Your task to perform on an android device: turn on javascript in the chrome app Image 0: 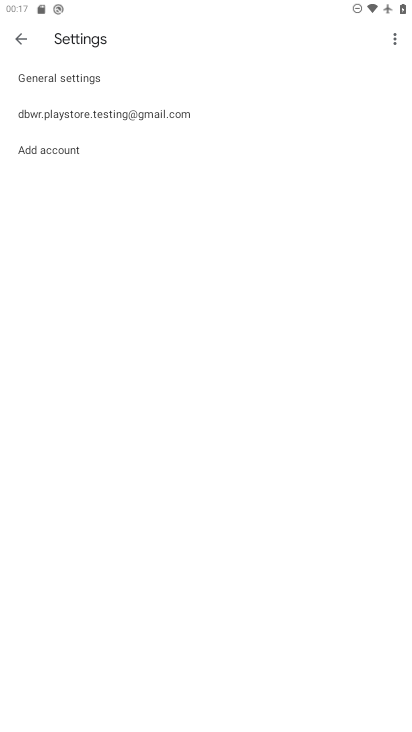
Step 0: press home button
Your task to perform on an android device: turn on javascript in the chrome app Image 1: 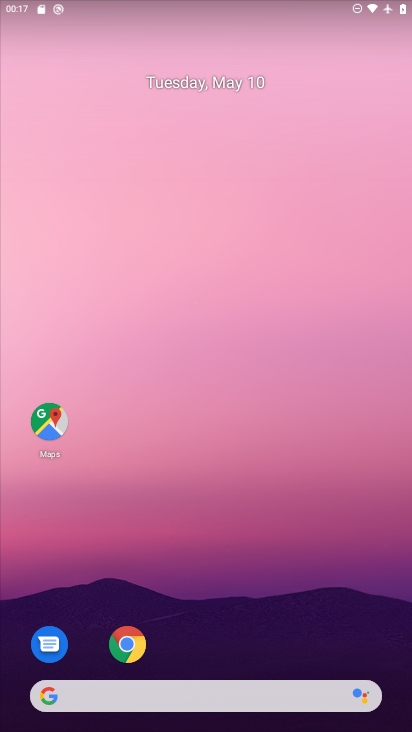
Step 1: click (117, 653)
Your task to perform on an android device: turn on javascript in the chrome app Image 2: 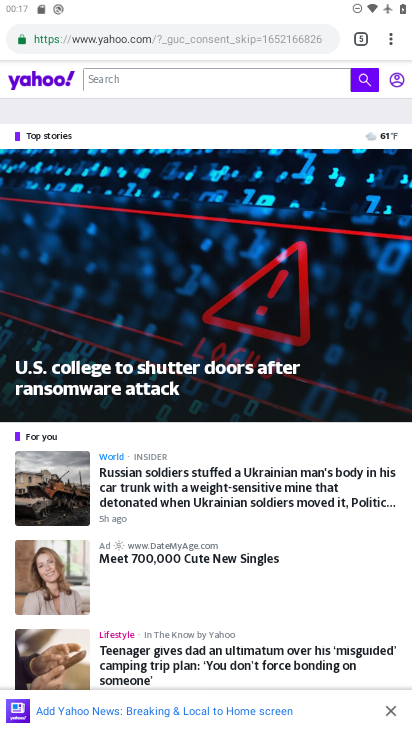
Step 2: click (401, 34)
Your task to perform on an android device: turn on javascript in the chrome app Image 3: 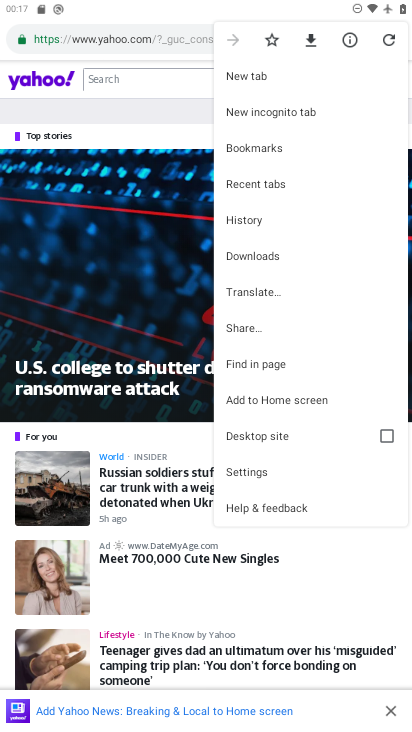
Step 3: click (262, 476)
Your task to perform on an android device: turn on javascript in the chrome app Image 4: 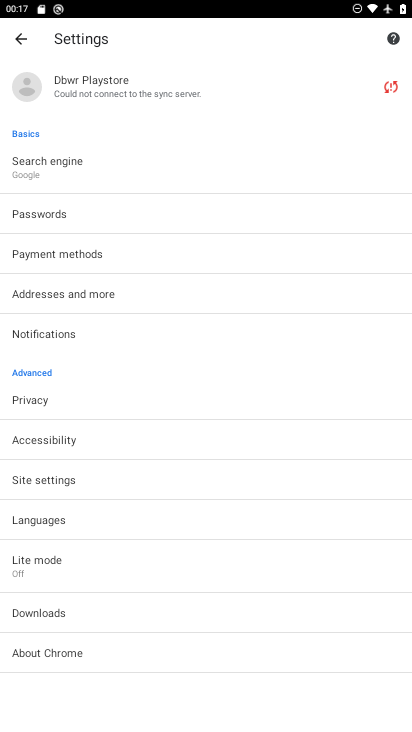
Step 4: click (63, 477)
Your task to perform on an android device: turn on javascript in the chrome app Image 5: 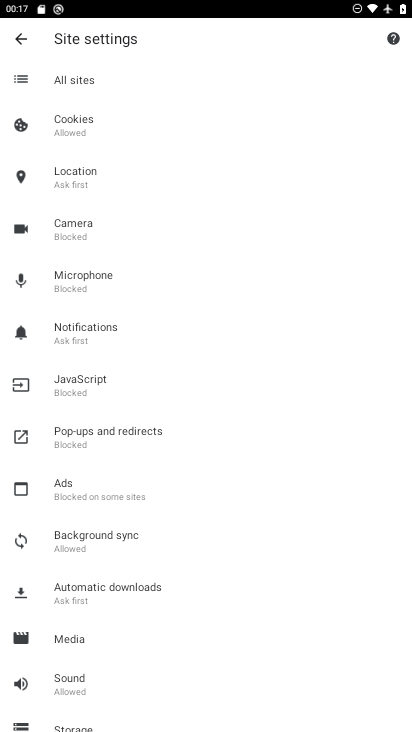
Step 5: click (86, 397)
Your task to perform on an android device: turn on javascript in the chrome app Image 6: 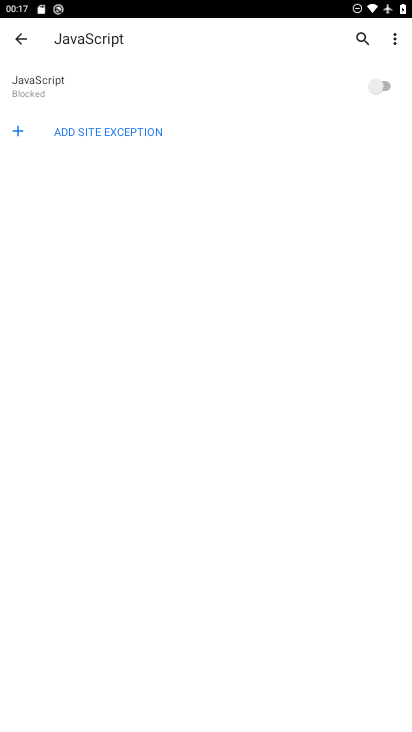
Step 6: click (116, 91)
Your task to perform on an android device: turn on javascript in the chrome app Image 7: 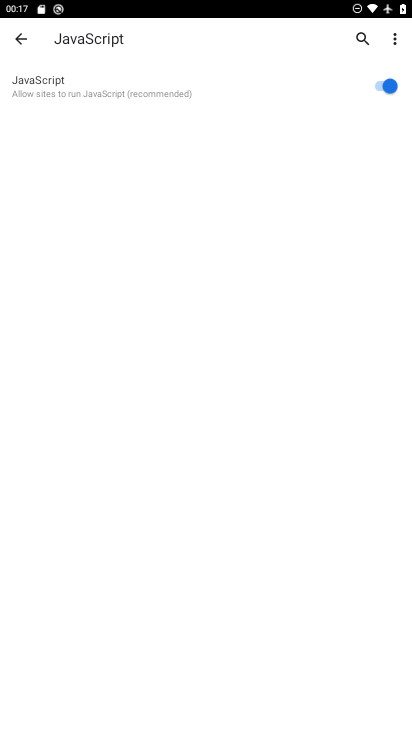
Step 7: task complete